Your task to perform on an android device: Go to notification settings Image 0: 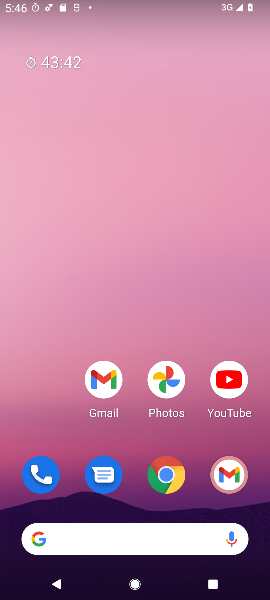
Step 0: press home button
Your task to perform on an android device: Go to notification settings Image 1: 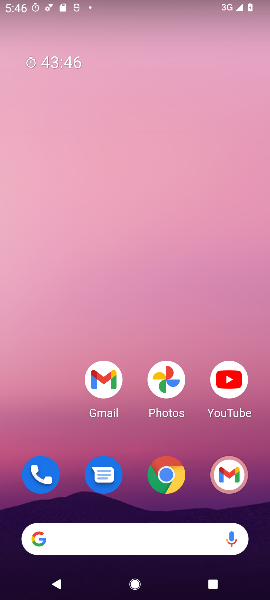
Step 1: drag from (66, 435) to (51, 222)
Your task to perform on an android device: Go to notification settings Image 2: 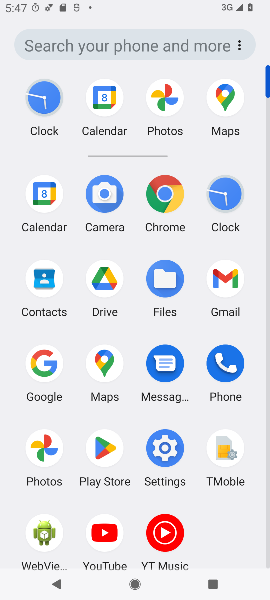
Step 2: click (163, 449)
Your task to perform on an android device: Go to notification settings Image 3: 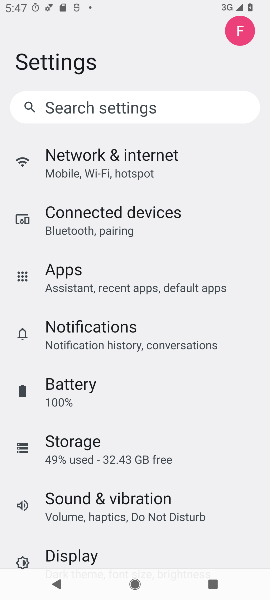
Step 3: drag from (211, 427) to (214, 371)
Your task to perform on an android device: Go to notification settings Image 4: 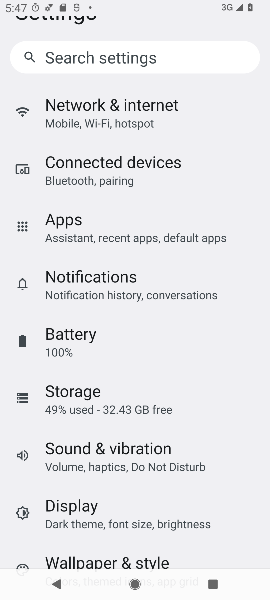
Step 4: drag from (218, 424) to (217, 332)
Your task to perform on an android device: Go to notification settings Image 5: 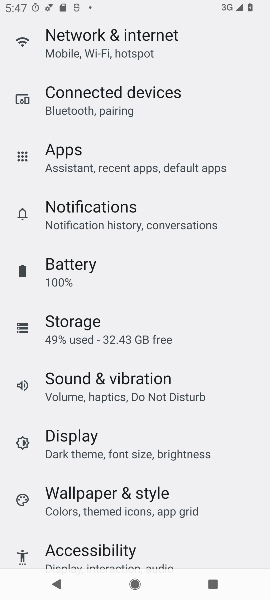
Step 5: drag from (230, 425) to (228, 325)
Your task to perform on an android device: Go to notification settings Image 6: 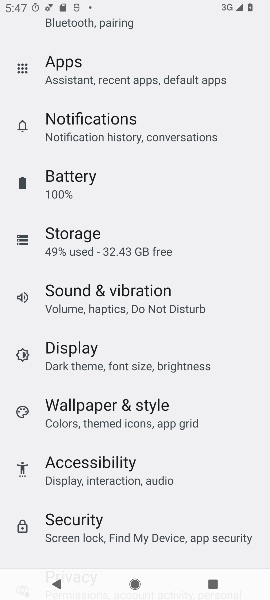
Step 6: drag from (227, 324) to (226, 286)
Your task to perform on an android device: Go to notification settings Image 7: 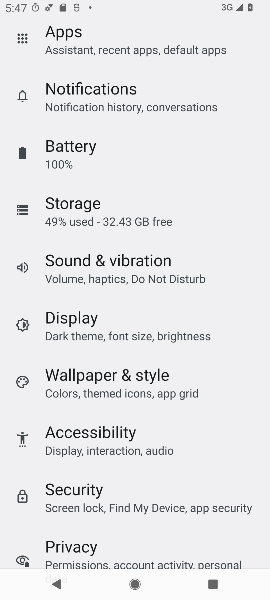
Step 7: click (174, 91)
Your task to perform on an android device: Go to notification settings Image 8: 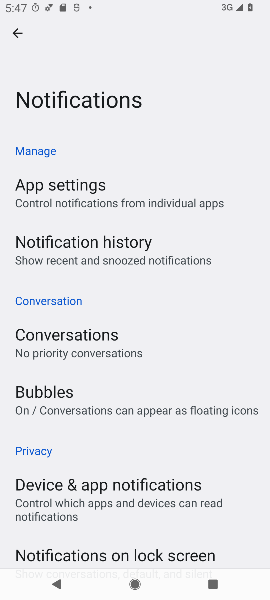
Step 8: task complete